Your task to perform on an android device: Open CNN.com Image 0: 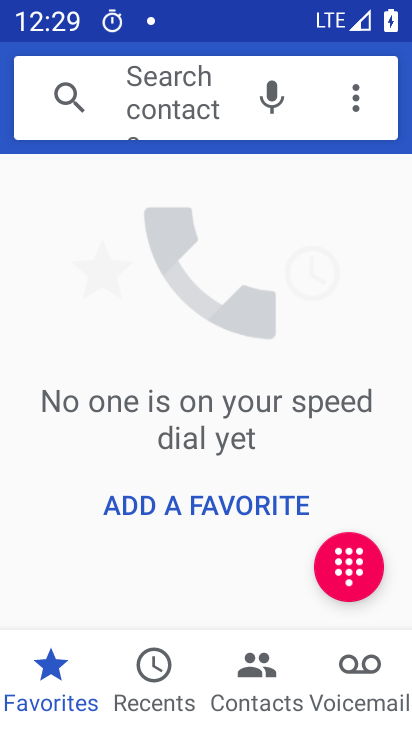
Step 0: press home button
Your task to perform on an android device: Open CNN.com Image 1: 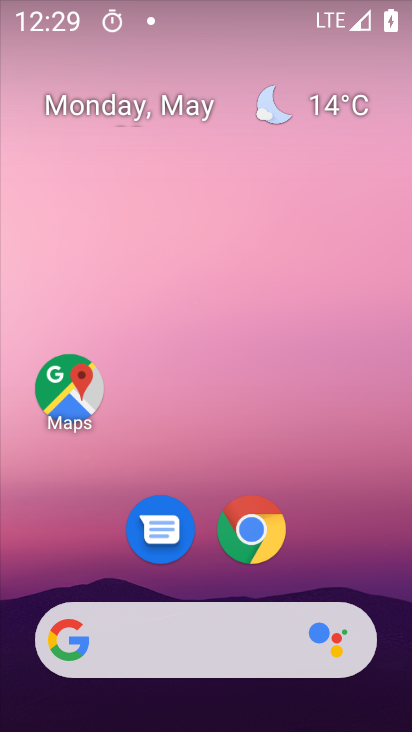
Step 1: drag from (372, 569) to (339, 142)
Your task to perform on an android device: Open CNN.com Image 2: 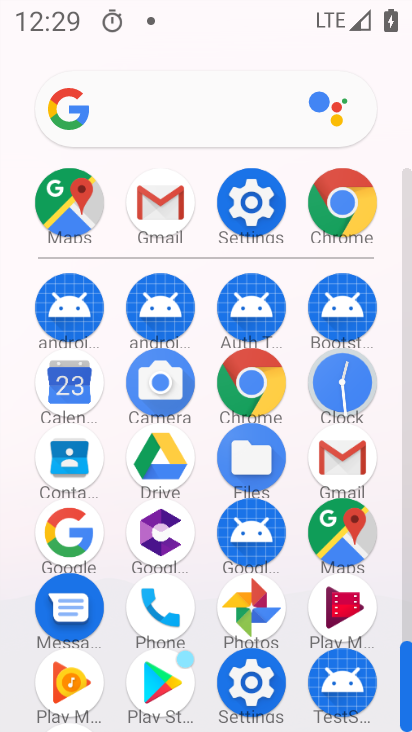
Step 2: click (352, 221)
Your task to perform on an android device: Open CNN.com Image 3: 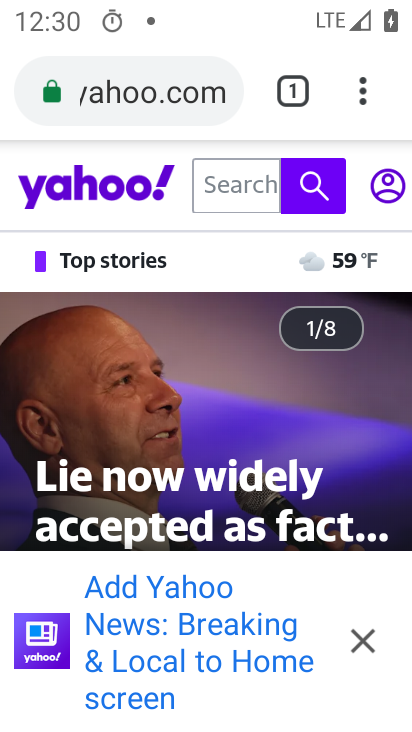
Step 3: press back button
Your task to perform on an android device: Open CNN.com Image 4: 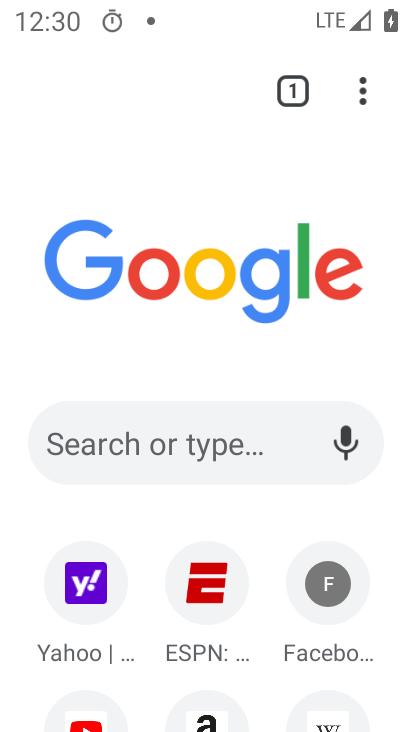
Step 4: drag from (282, 533) to (278, 364)
Your task to perform on an android device: Open CNN.com Image 5: 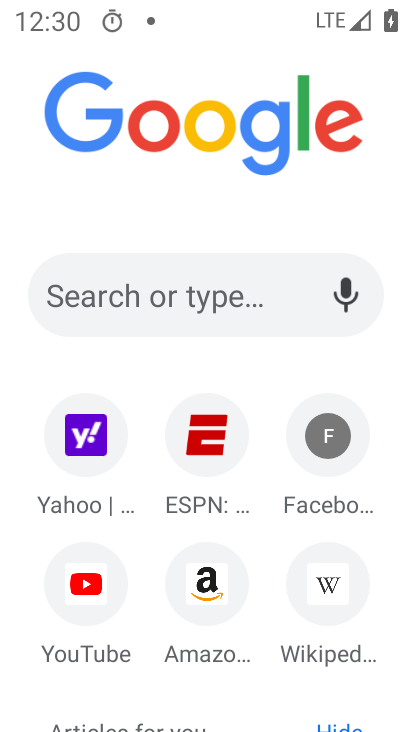
Step 5: click (247, 304)
Your task to perform on an android device: Open CNN.com Image 6: 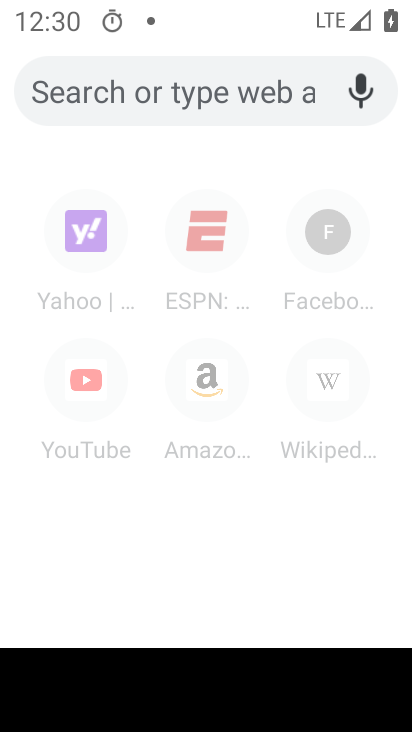
Step 6: type "cnn.com"
Your task to perform on an android device: Open CNN.com Image 7: 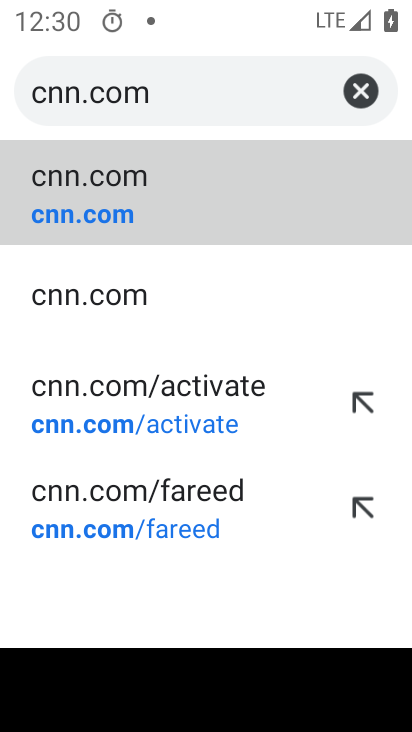
Step 7: click (225, 197)
Your task to perform on an android device: Open CNN.com Image 8: 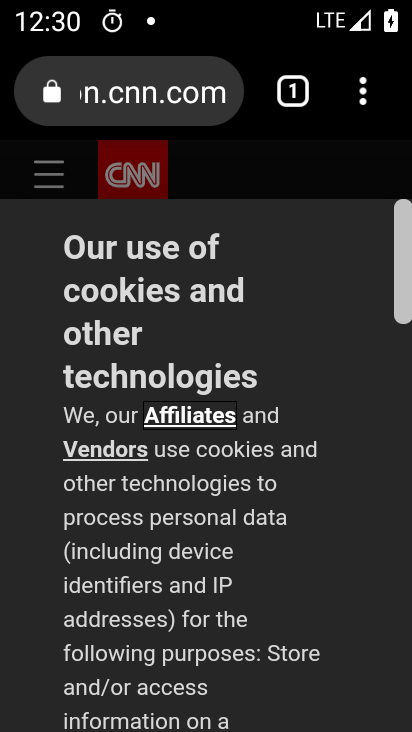
Step 8: task complete